Your task to perform on an android device: turn on showing notifications on the lock screen Image 0: 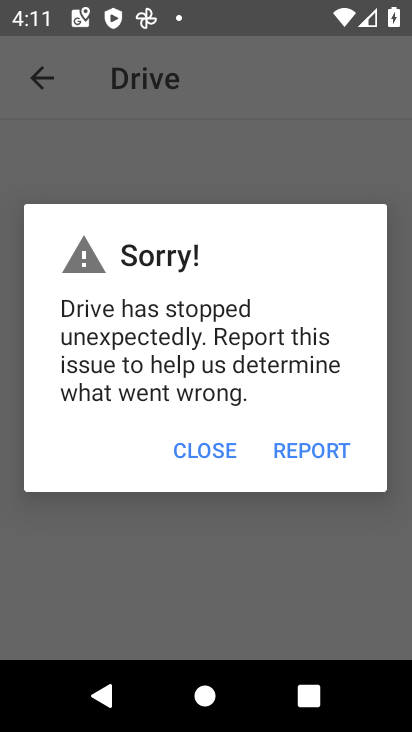
Step 0: press back button
Your task to perform on an android device: turn on showing notifications on the lock screen Image 1: 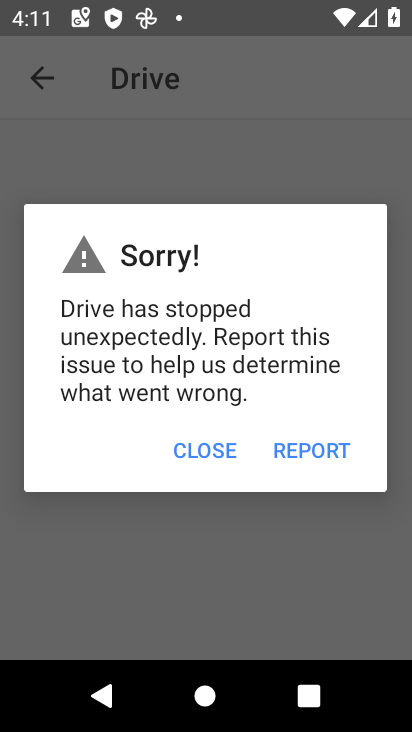
Step 1: press home button
Your task to perform on an android device: turn on showing notifications on the lock screen Image 2: 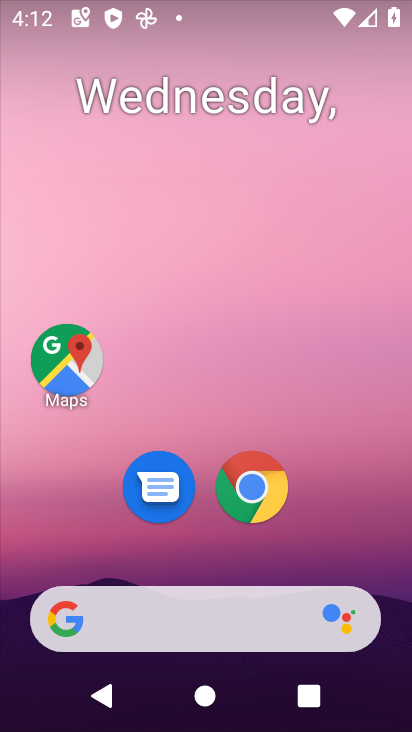
Step 2: drag from (378, 529) to (363, 124)
Your task to perform on an android device: turn on showing notifications on the lock screen Image 3: 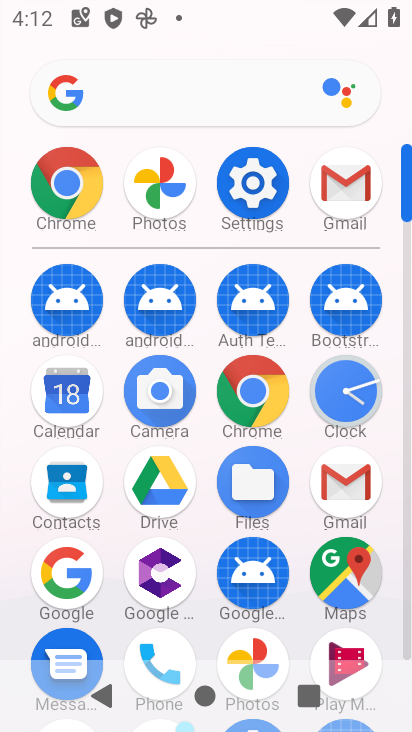
Step 3: click (271, 201)
Your task to perform on an android device: turn on showing notifications on the lock screen Image 4: 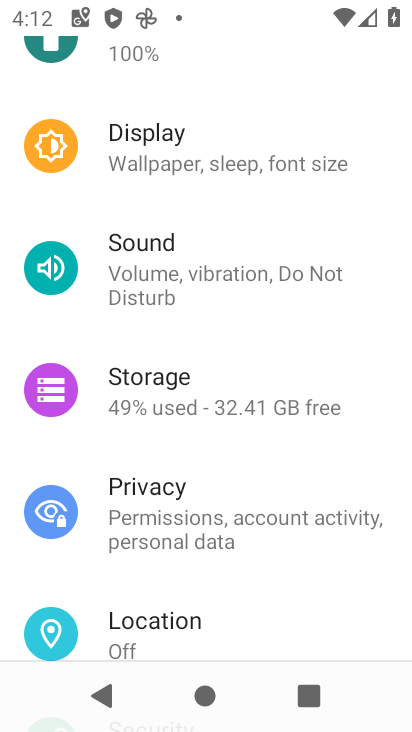
Step 4: drag from (343, 363) to (347, 435)
Your task to perform on an android device: turn on showing notifications on the lock screen Image 5: 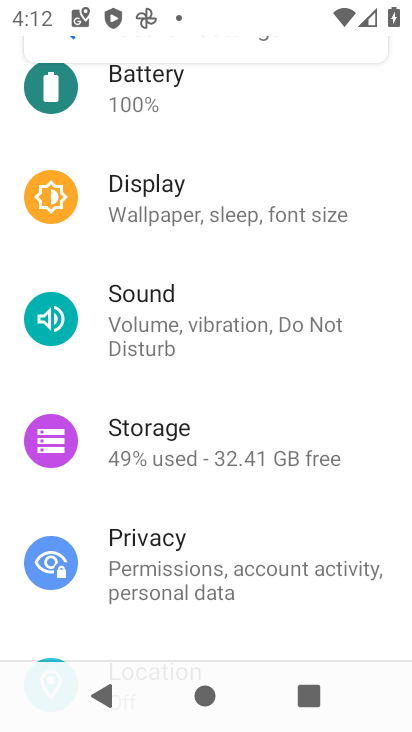
Step 5: drag from (356, 341) to (354, 430)
Your task to perform on an android device: turn on showing notifications on the lock screen Image 6: 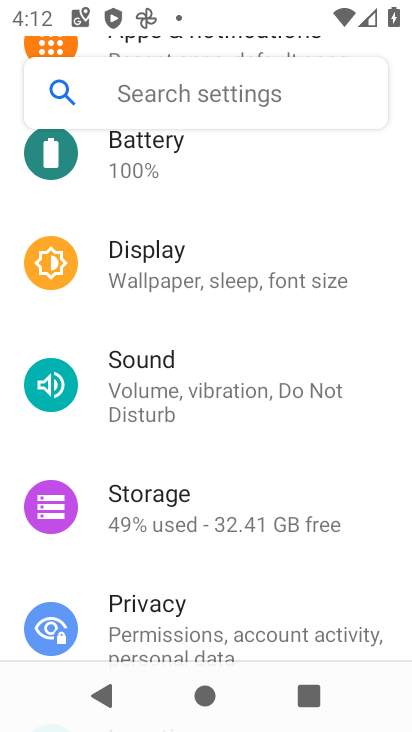
Step 6: drag from (359, 295) to (351, 398)
Your task to perform on an android device: turn on showing notifications on the lock screen Image 7: 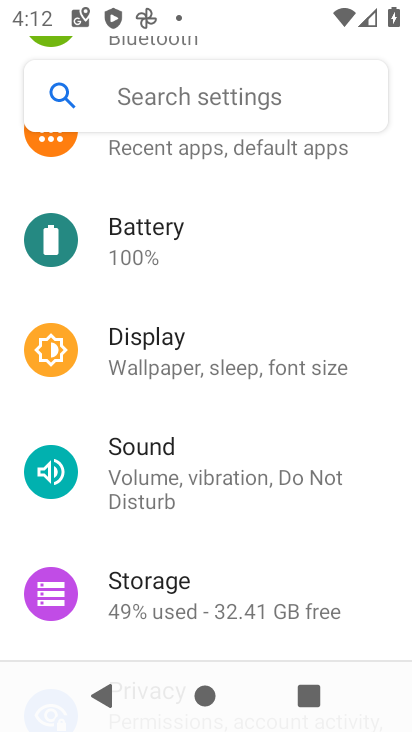
Step 7: drag from (353, 275) to (353, 406)
Your task to perform on an android device: turn on showing notifications on the lock screen Image 8: 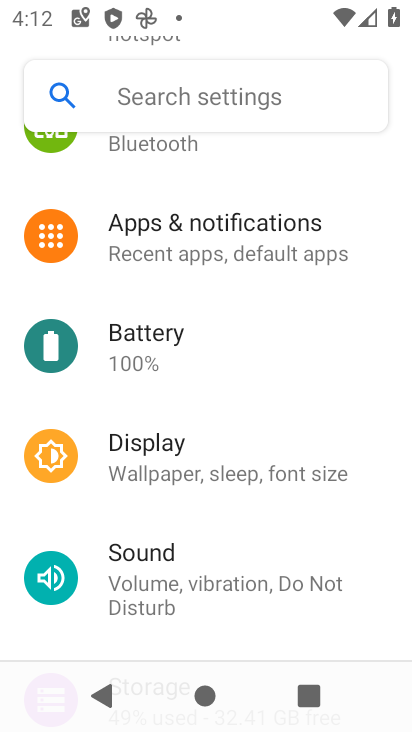
Step 8: drag from (359, 304) to (354, 422)
Your task to perform on an android device: turn on showing notifications on the lock screen Image 9: 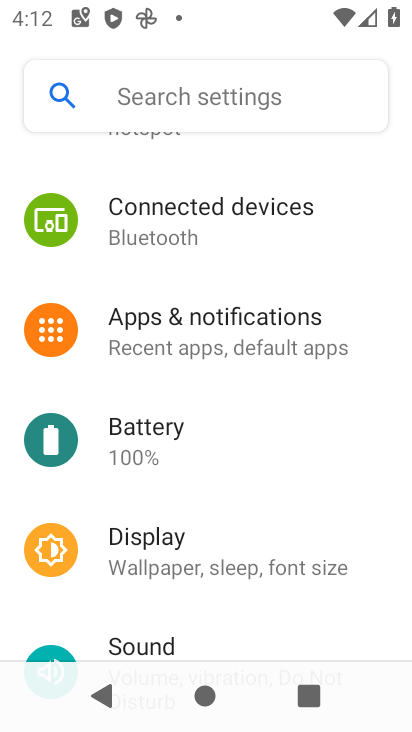
Step 9: click (282, 338)
Your task to perform on an android device: turn on showing notifications on the lock screen Image 10: 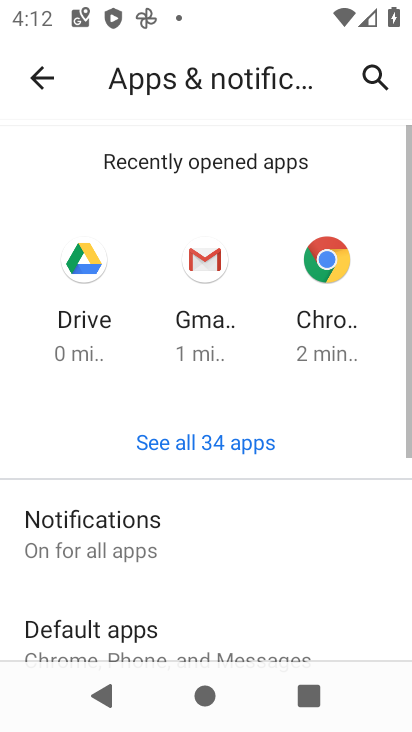
Step 10: drag from (265, 513) to (273, 436)
Your task to perform on an android device: turn on showing notifications on the lock screen Image 11: 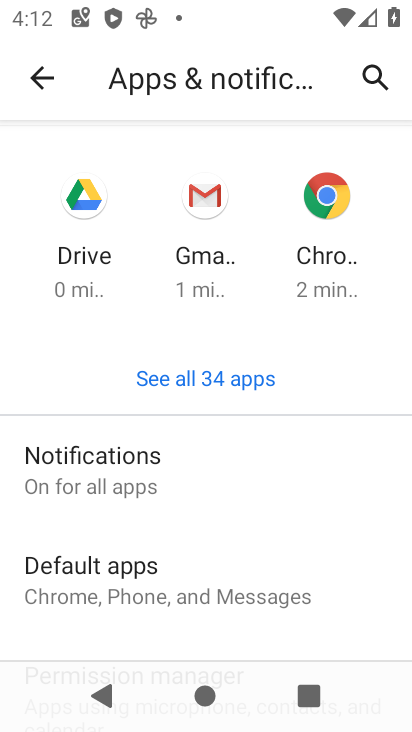
Step 11: drag from (248, 515) to (248, 407)
Your task to perform on an android device: turn on showing notifications on the lock screen Image 12: 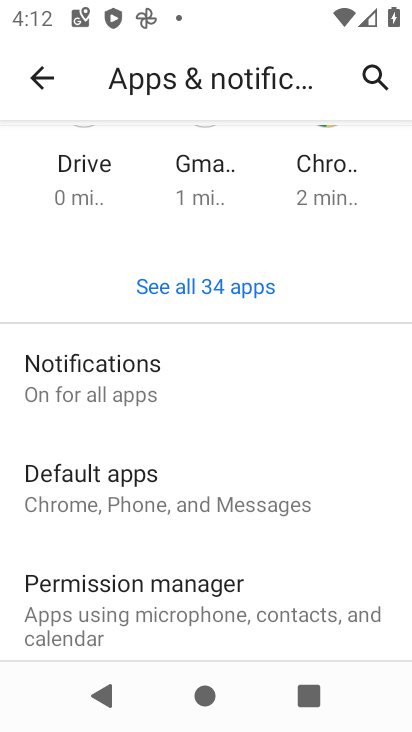
Step 12: click (100, 399)
Your task to perform on an android device: turn on showing notifications on the lock screen Image 13: 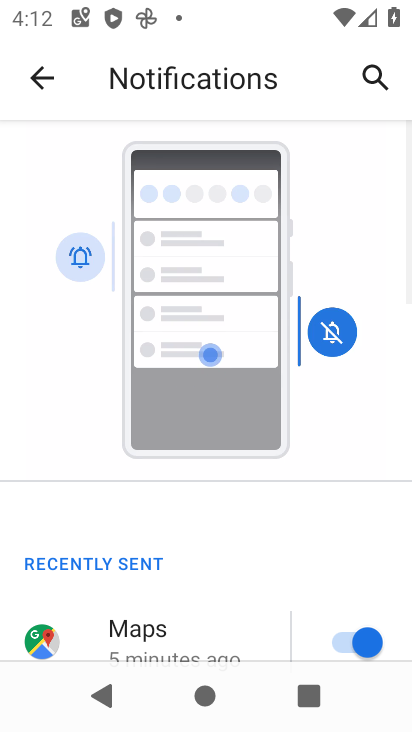
Step 13: drag from (256, 530) to (272, 410)
Your task to perform on an android device: turn on showing notifications on the lock screen Image 14: 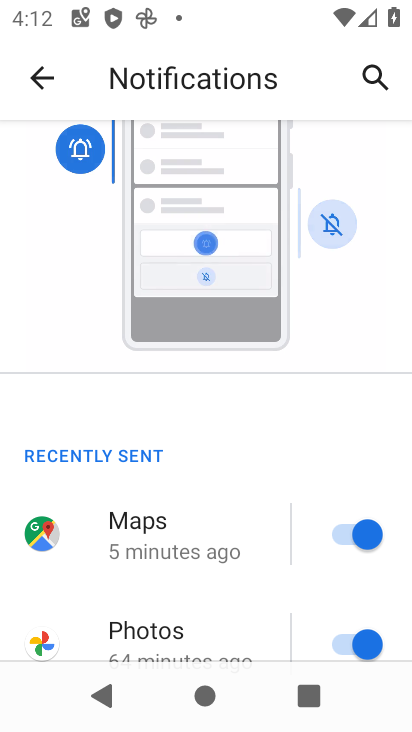
Step 14: drag from (231, 561) to (247, 444)
Your task to perform on an android device: turn on showing notifications on the lock screen Image 15: 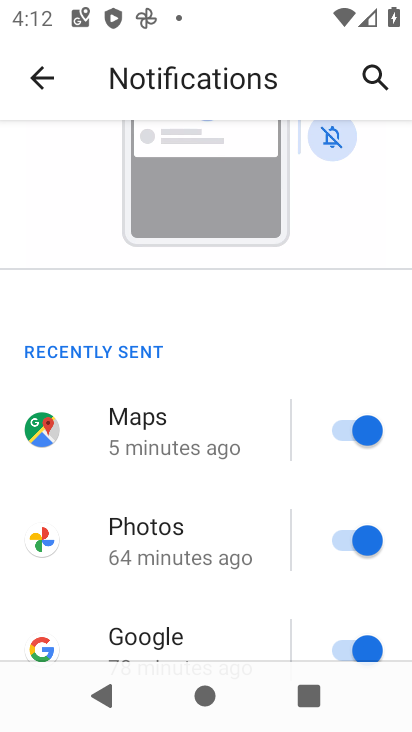
Step 15: drag from (232, 574) to (221, 448)
Your task to perform on an android device: turn on showing notifications on the lock screen Image 16: 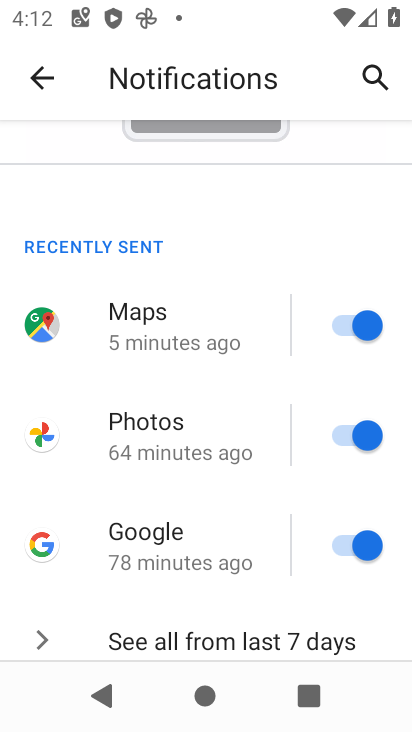
Step 16: drag from (217, 586) to (231, 383)
Your task to perform on an android device: turn on showing notifications on the lock screen Image 17: 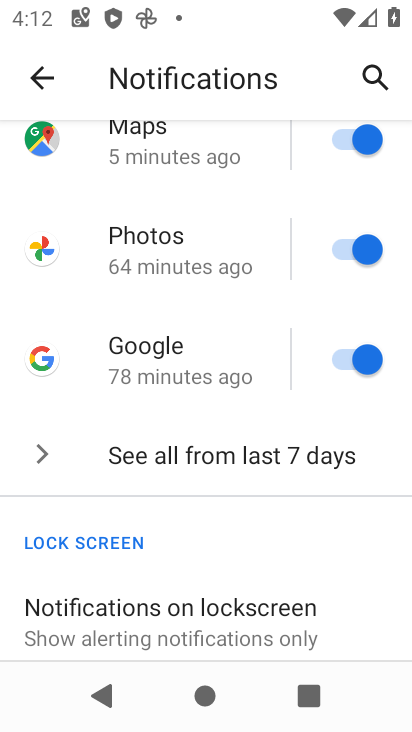
Step 17: click (216, 615)
Your task to perform on an android device: turn on showing notifications on the lock screen Image 18: 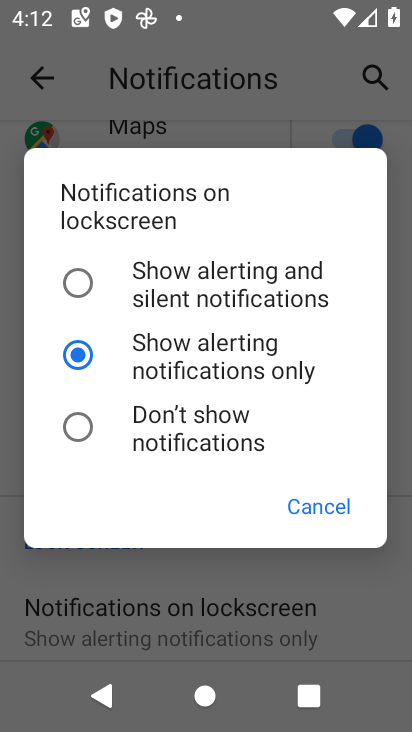
Step 18: task complete